Your task to perform on an android device: add a label to a message in the gmail app Image 0: 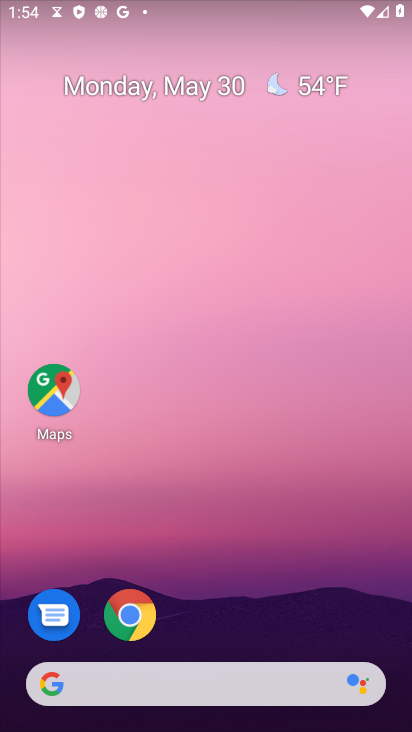
Step 0: drag from (223, 578) to (174, 0)
Your task to perform on an android device: add a label to a message in the gmail app Image 1: 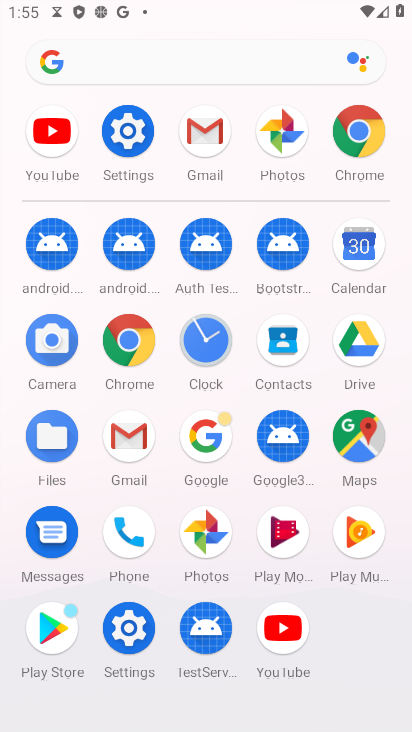
Step 1: click (131, 445)
Your task to perform on an android device: add a label to a message in the gmail app Image 2: 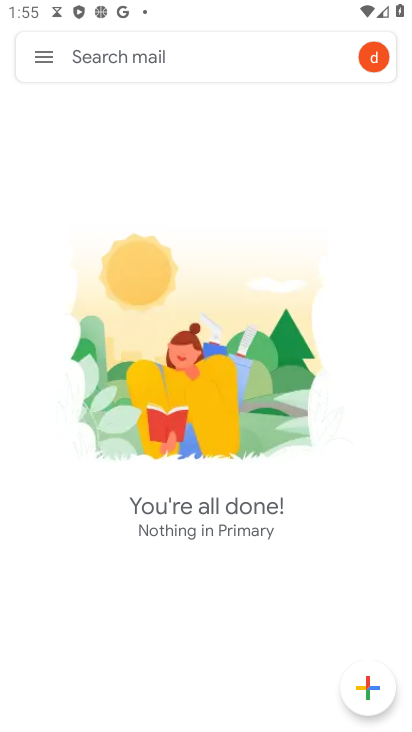
Step 2: click (38, 57)
Your task to perform on an android device: add a label to a message in the gmail app Image 3: 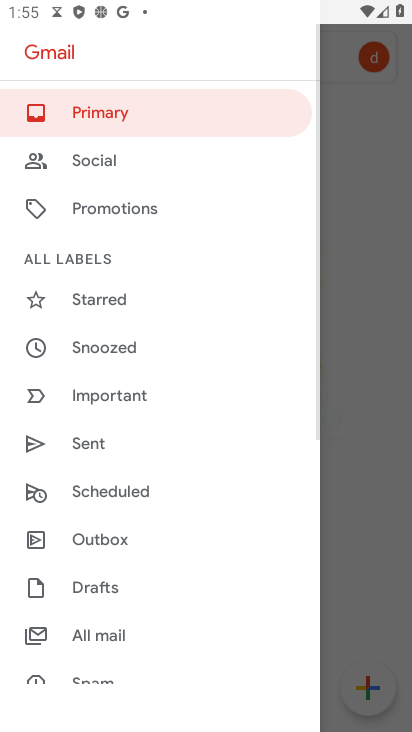
Step 3: drag from (126, 257) to (147, 579)
Your task to perform on an android device: add a label to a message in the gmail app Image 4: 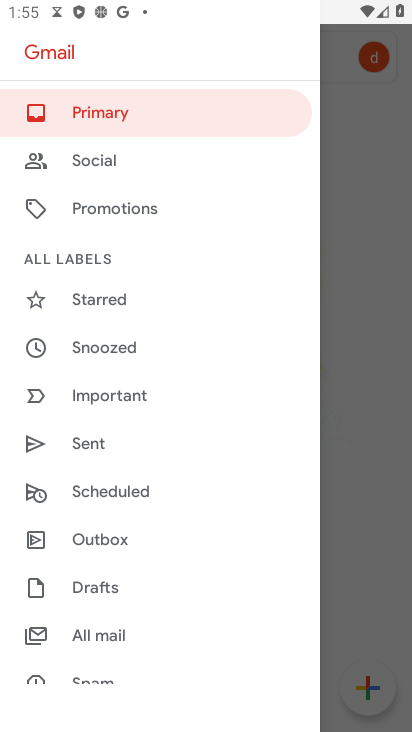
Step 4: drag from (133, 644) to (72, 165)
Your task to perform on an android device: add a label to a message in the gmail app Image 5: 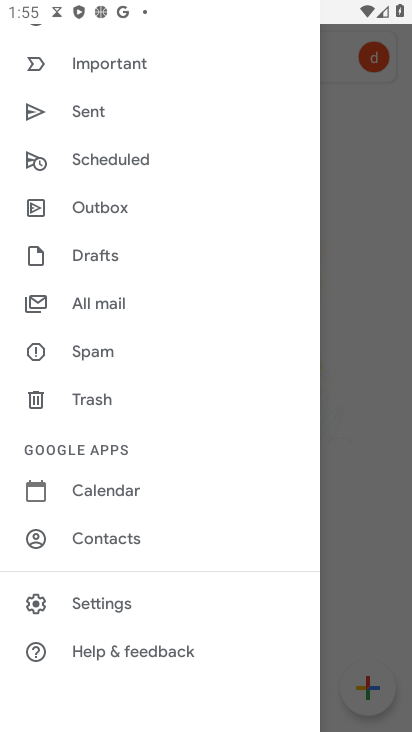
Step 5: click (146, 296)
Your task to perform on an android device: add a label to a message in the gmail app Image 6: 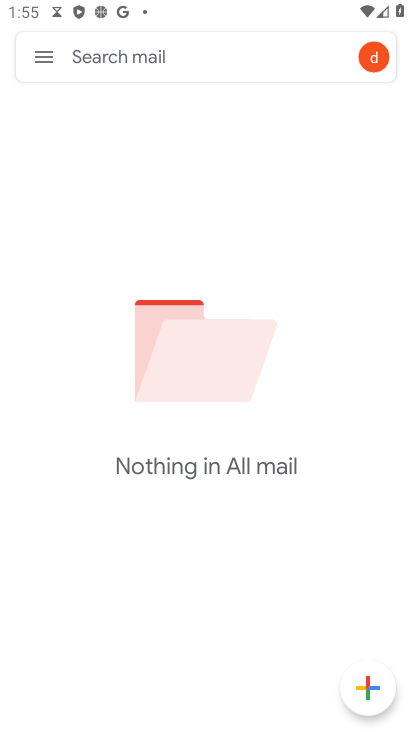
Step 6: task complete